Your task to perform on an android device: Open the calendar app, open the side menu, and click the "Day" option Image 0: 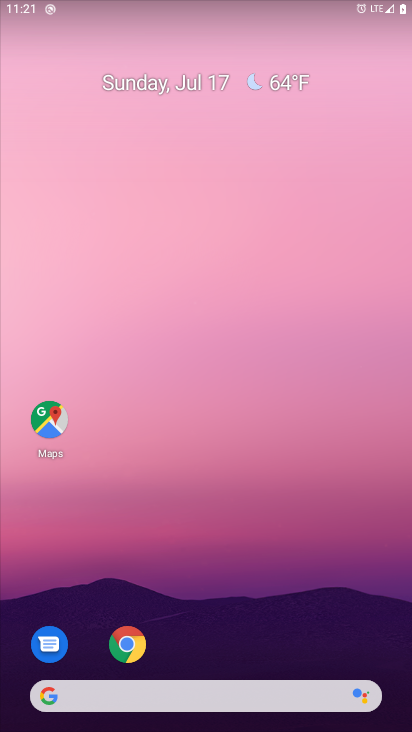
Step 0: press home button
Your task to perform on an android device: Open the calendar app, open the side menu, and click the "Day" option Image 1: 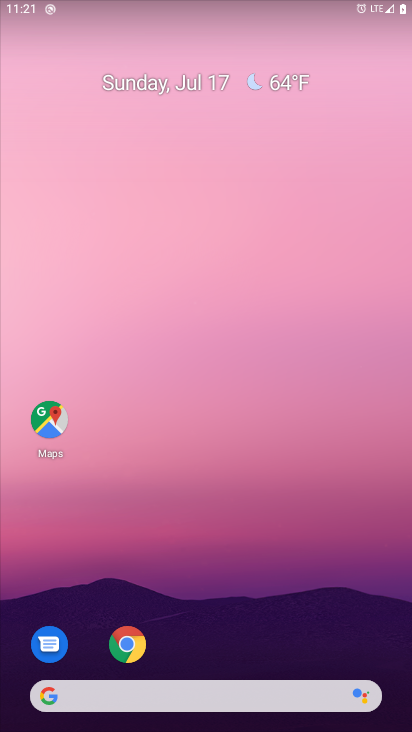
Step 1: drag from (260, 599) to (296, 54)
Your task to perform on an android device: Open the calendar app, open the side menu, and click the "Day" option Image 2: 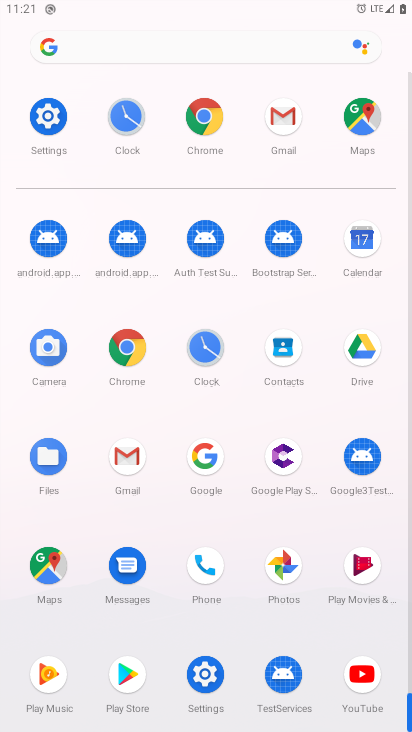
Step 2: click (380, 243)
Your task to perform on an android device: Open the calendar app, open the side menu, and click the "Day" option Image 3: 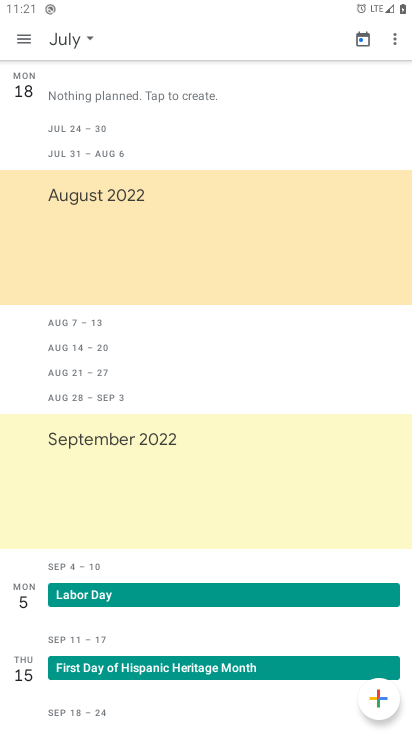
Step 3: click (24, 35)
Your task to perform on an android device: Open the calendar app, open the side menu, and click the "Day" option Image 4: 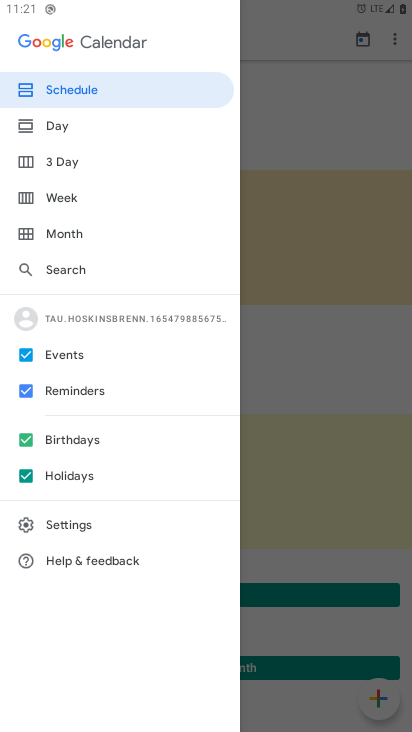
Step 4: click (66, 125)
Your task to perform on an android device: Open the calendar app, open the side menu, and click the "Day" option Image 5: 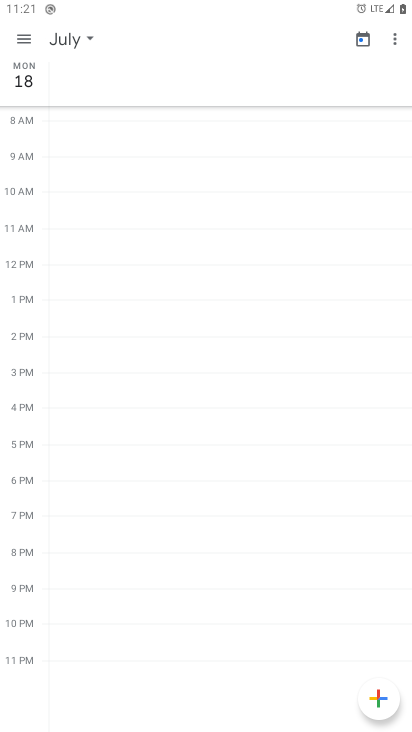
Step 5: task complete